Your task to perform on an android device: visit the assistant section in the google photos Image 0: 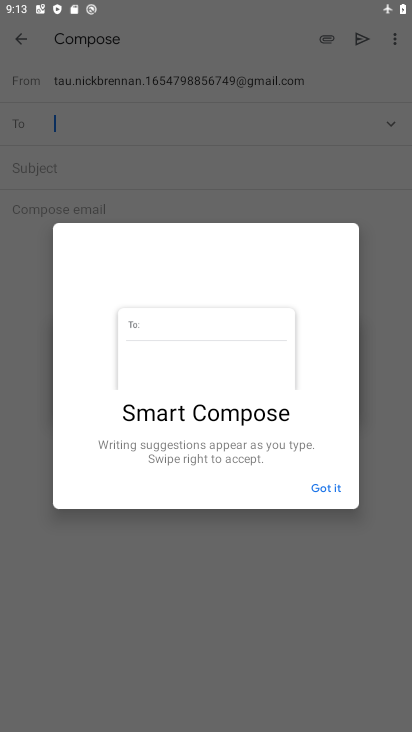
Step 0: press home button
Your task to perform on an android device: visit the assistant section in the google photos Image 1: 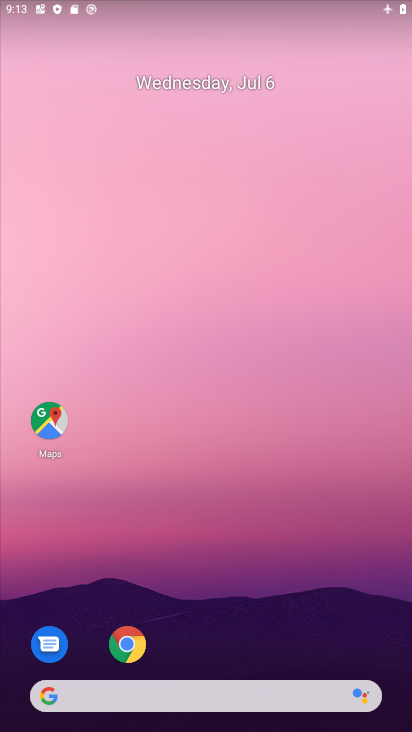
Step 1: drag from (174, 629) to (168, 208)
Your task to perform on an android device: visit the assistant section in the google photos Image 2: 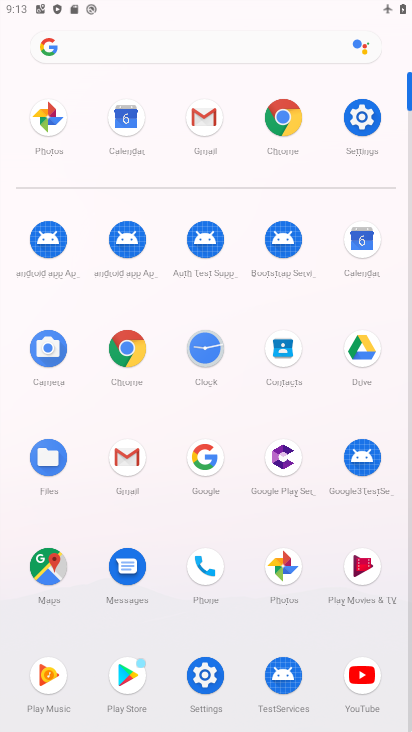
Step 2: click (45, 125)
Your task to perform on an android device: visit the assistant section in the google photos Image 3: 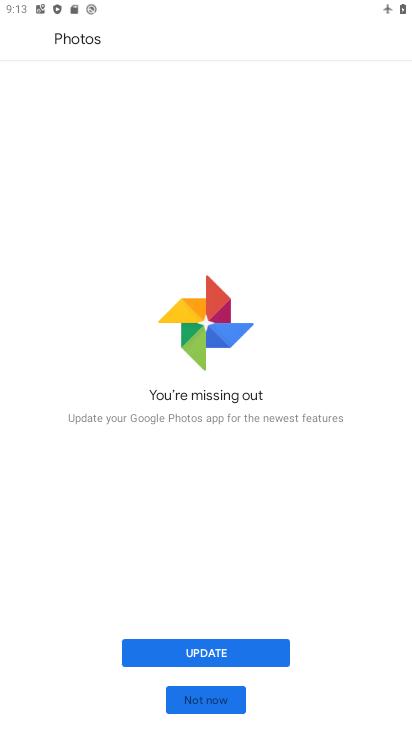
Step 3: click (215, 703)
Your task to perform on an android device: visit the assistant section in the google photos Image 4: 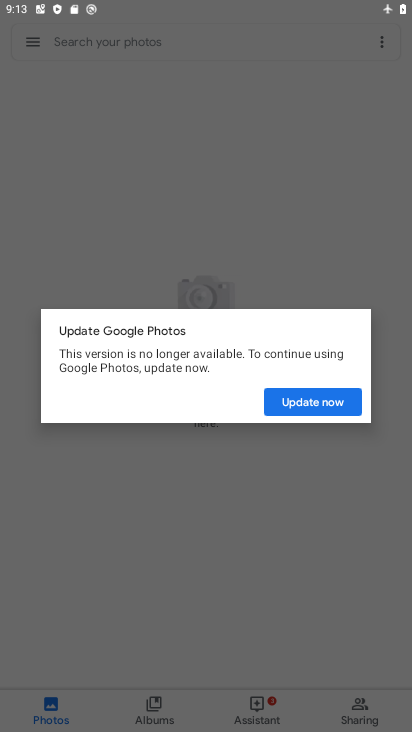
Step 4: click (289, 403)
Your task to perform on an android device: visit the assistant section in the google photos Image 5: 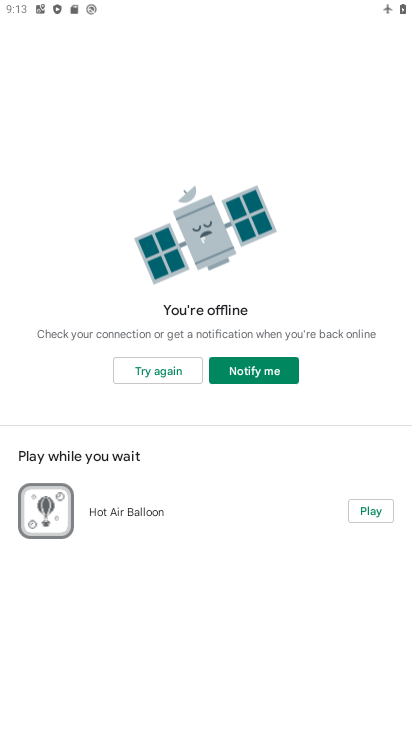
Step 5: press back button
Your task to perform on an android device: visit the assistant section in the google photos Image 6: 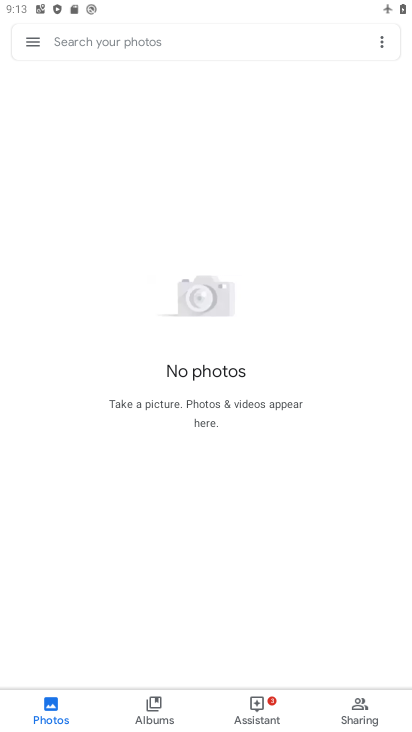
Step 6: click (251, 702)
Your task to perform on an android device: visit the assistant section in the google photos Image 7: 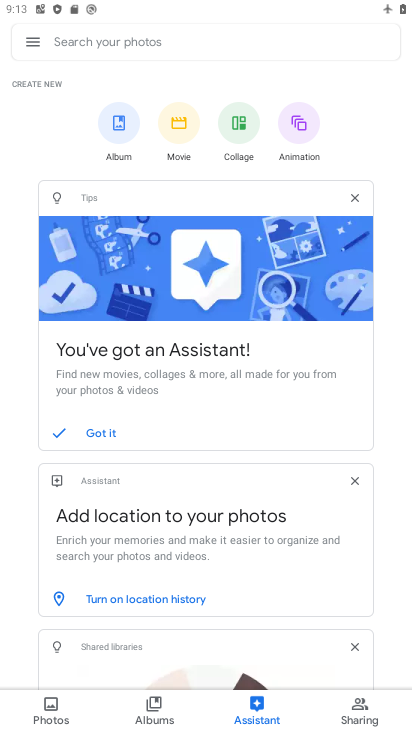
Step 7: task complete